Your task to perform on an android device: Search for the best rated tool bag on Lowe's. Image 0: 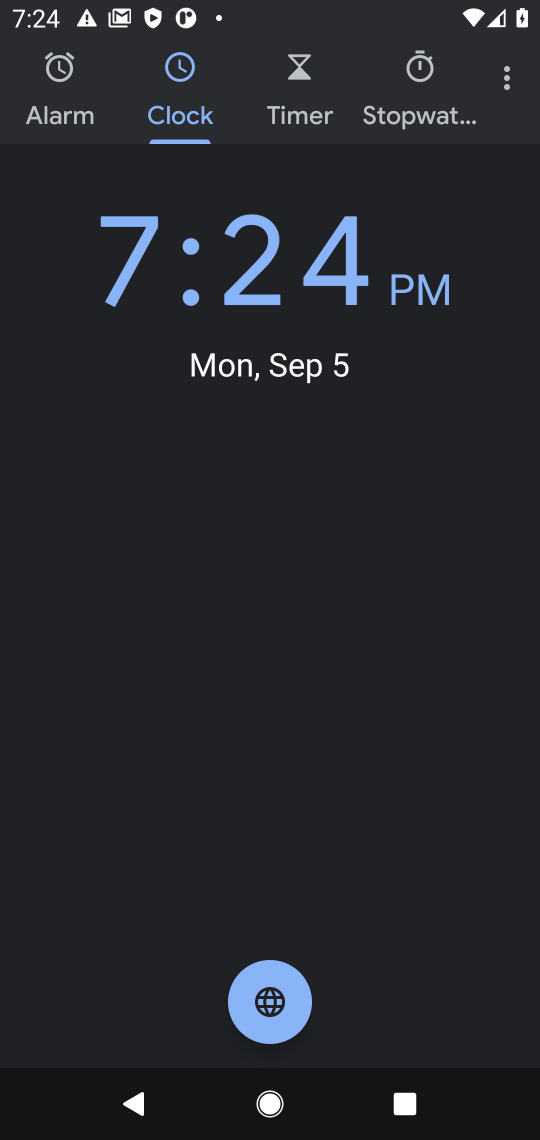
Step 0: press home button
Your task to perform on an android device: Search for the best rated tool bag on Lowe's. Image 1: 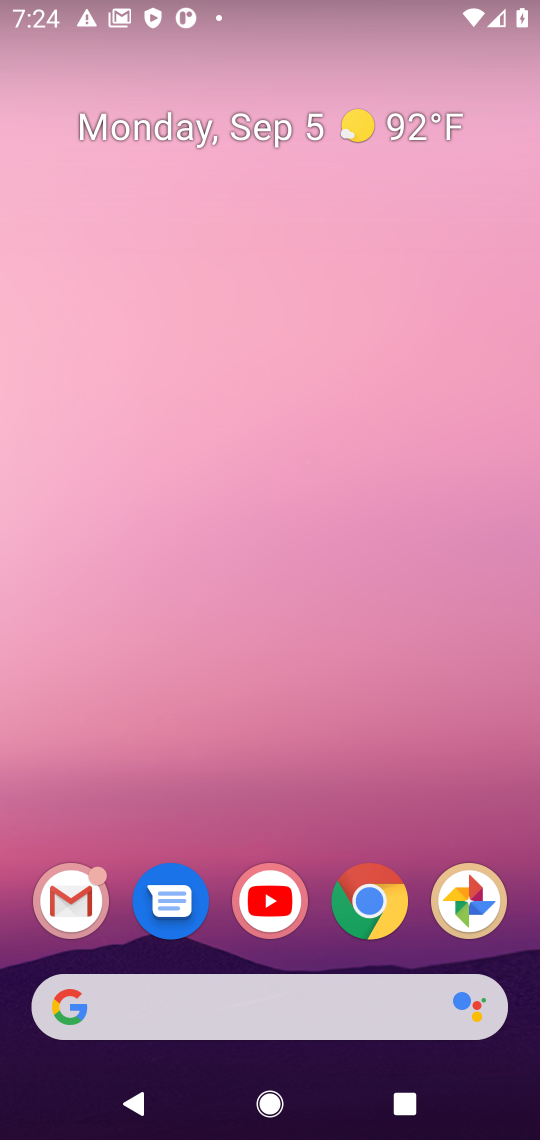
Step 1: click (336, 901)
Your task to perform on an android device: Search for the best rated tool bag on Lowe's. Image 2: 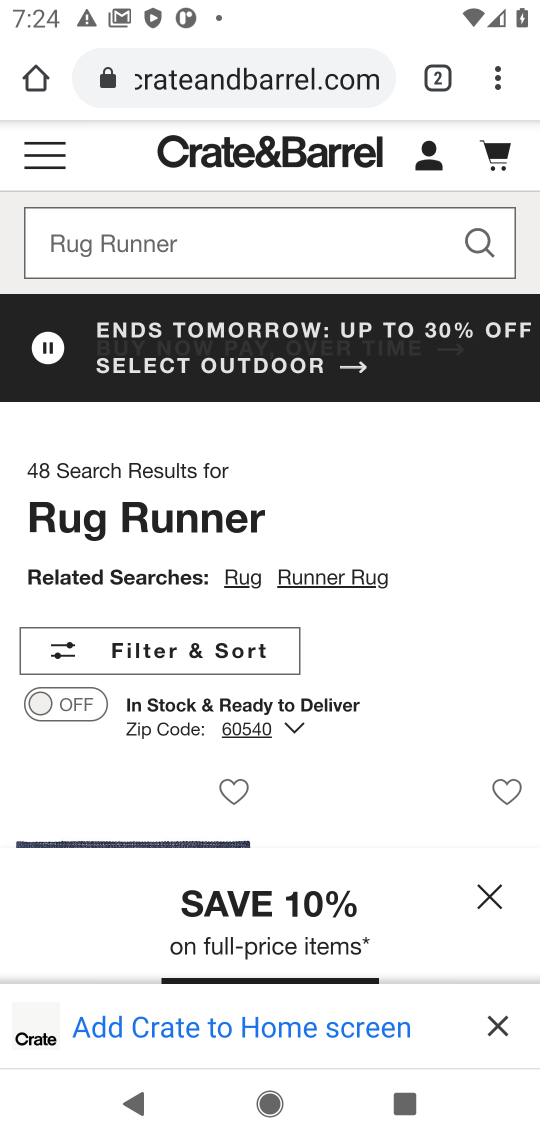
Step 2: click (194, 91)
Your task to perform on an android device: Search for the best rated tool bag on Lowe's. Image 3: 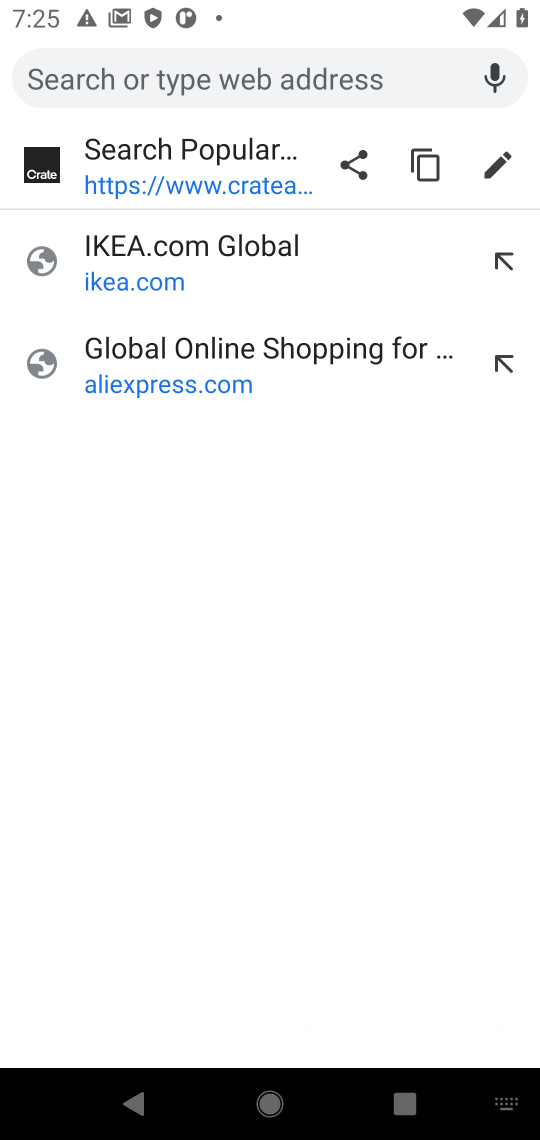
Step 3: type "low's"
Your task to perform on an android device: Search for the best rated tool bag on Lowe's. Image 4: 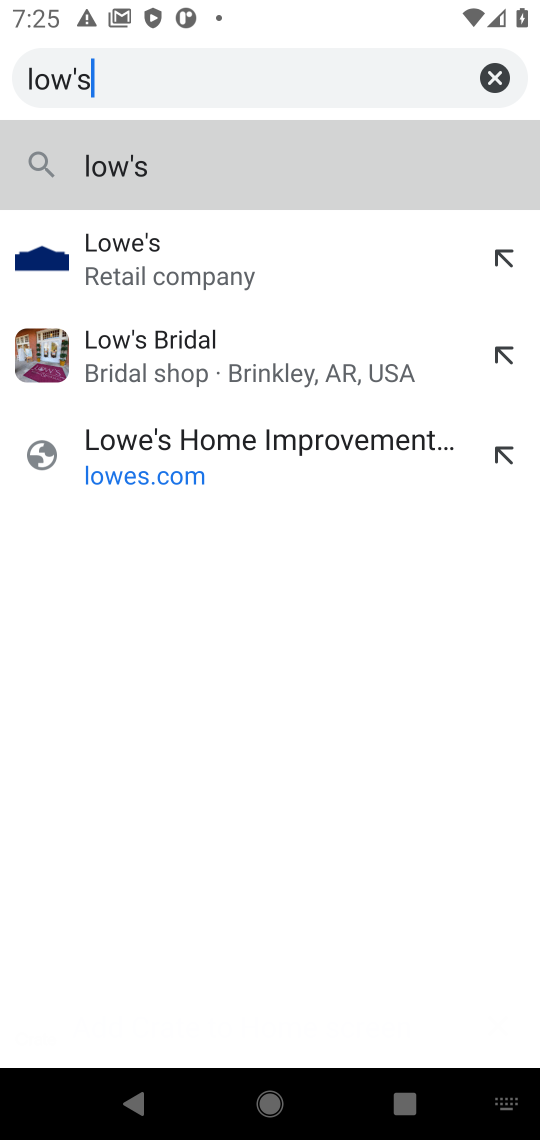
Step 4: click (175, 143)
Your task to perform on an android device: Search for the best rated tool bag on Lowe's. Image 5: 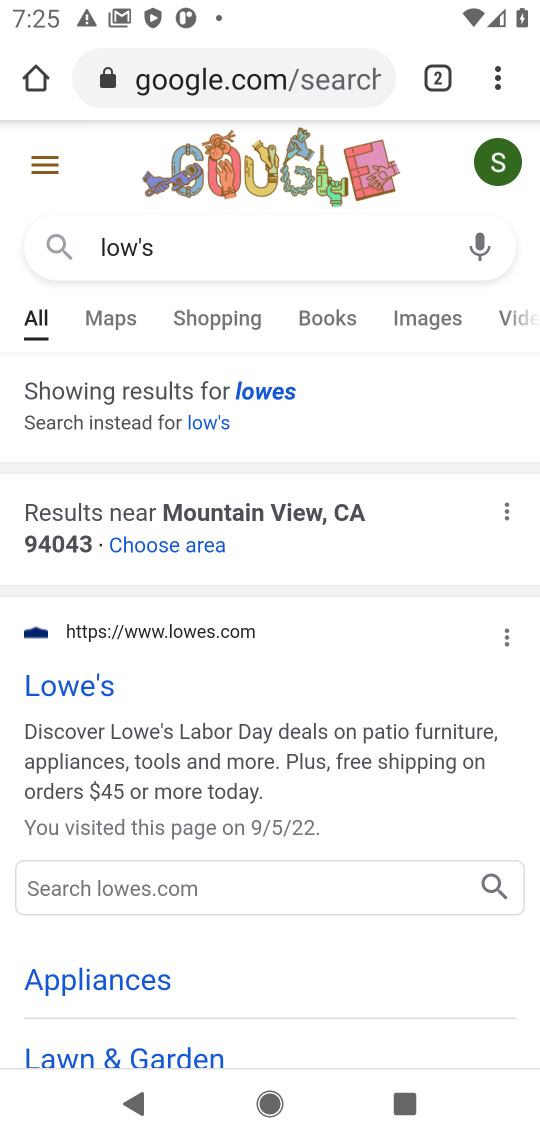
Step 5: click (84, 702)
Your task to perform on an android device: Search for the best rated tool bag on Lowe's. Image 6: 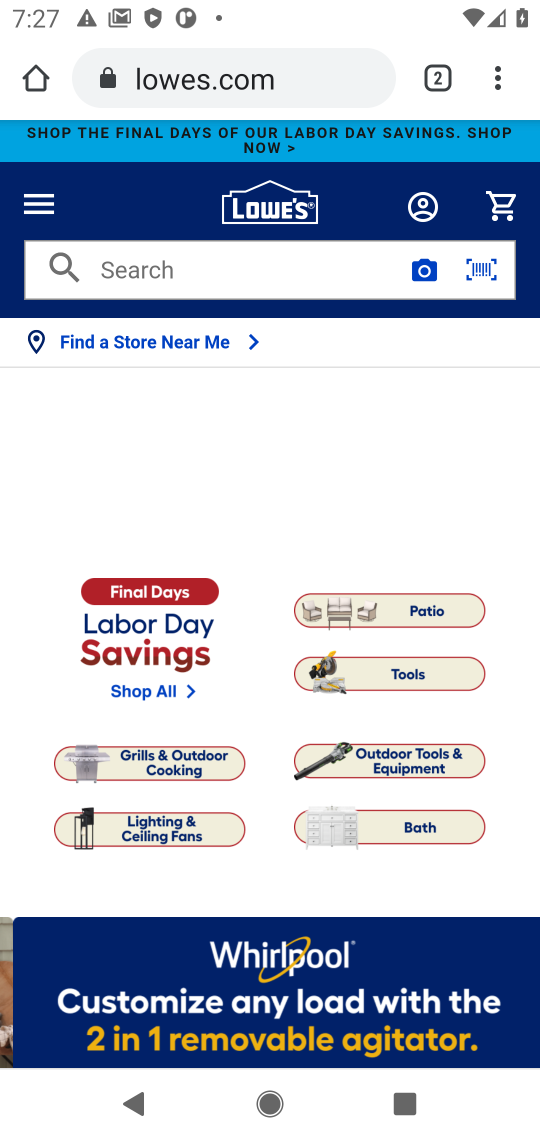
Step 6: task complete